Your task to perform on an android device: Search for Mexican restaurants on Maps Image 0: 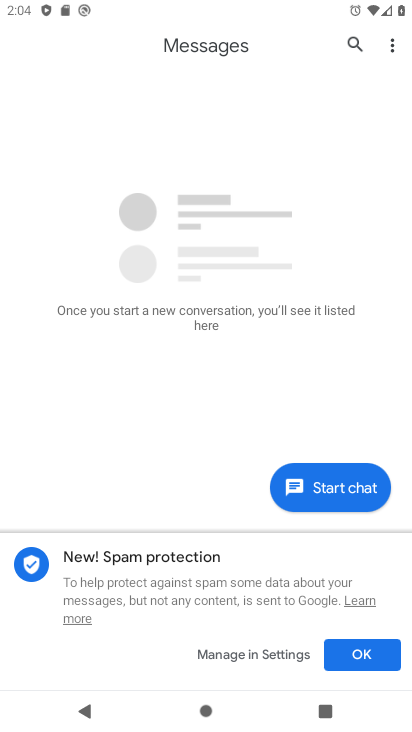
Step 0: press home button
Your task to perform on an android device: Search for Mexican restaurants on Maps Image 1: 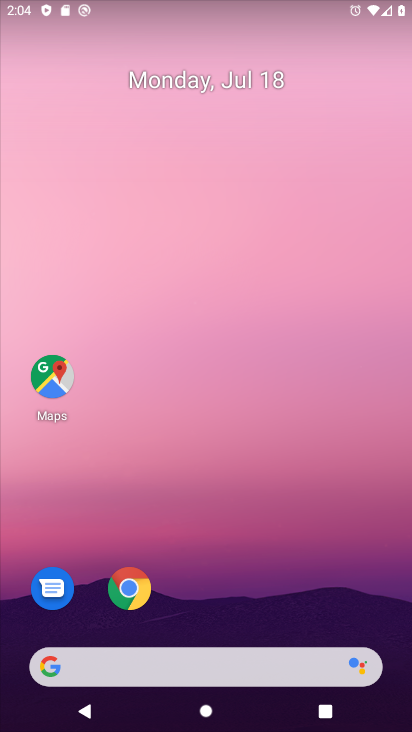
Step 1: drag from (363, 626) to (280, 194)
Your task to perform on an android device: Search for Mexican restaurants on Maps Image 2: 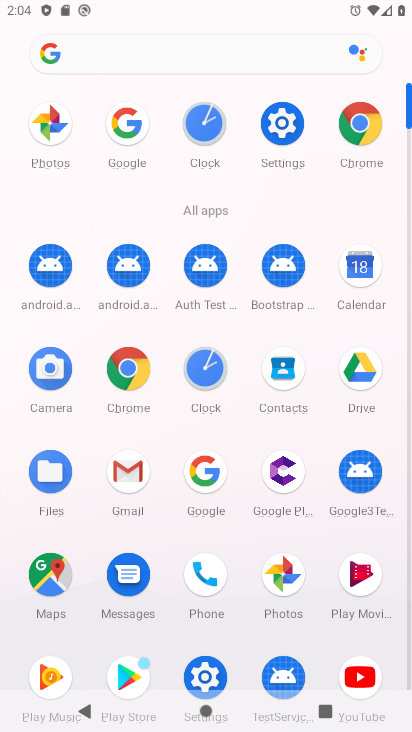
Step 2: click (51, 575)
Your task to perform on an android device: Search for Mexican restaurants on Maps Image 3: 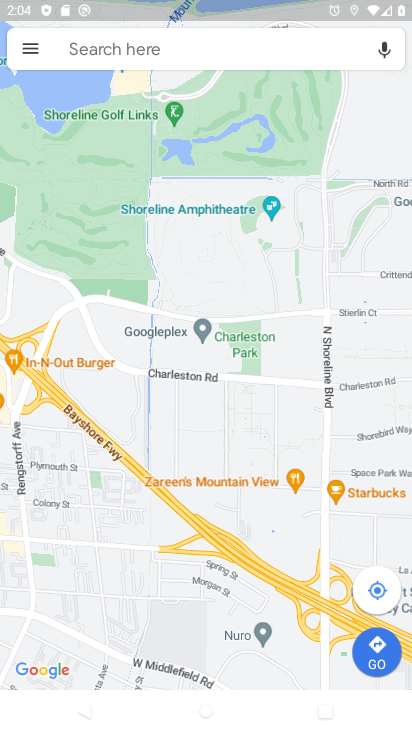
Step 3: click (156, 63)
Your task to perform on an android device: Search for Mexican restaurants on Maps Image 4: 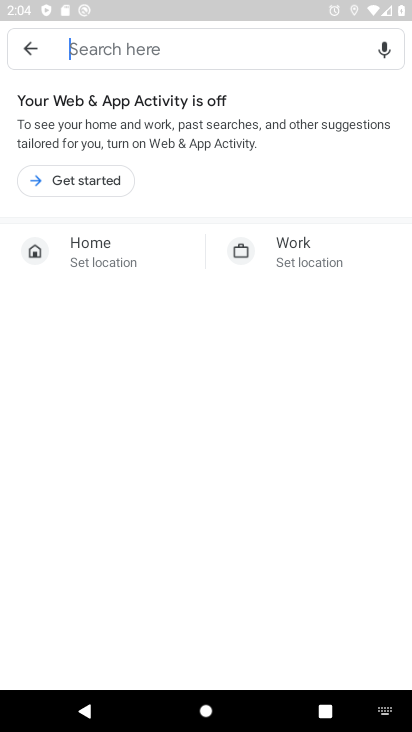
Step 4: type "Mexican restaurants"
Your task to perform on an android device: Search for Mexican restaurants on Maps Image 5: 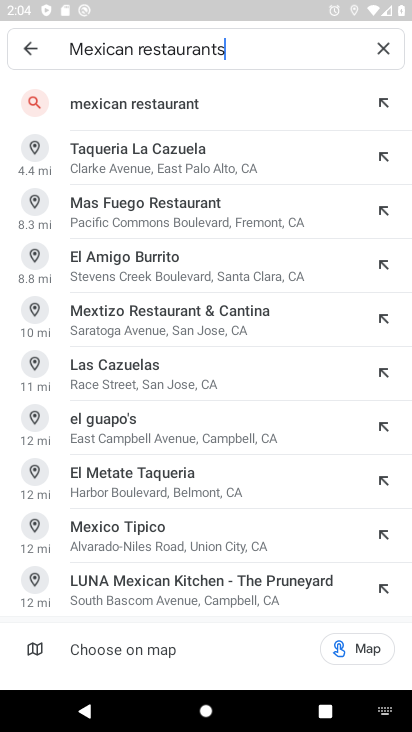
Step 5: click (271, 106)
Your task to perform on an android device: Search for Mexican restaurants on Maps Image 6: 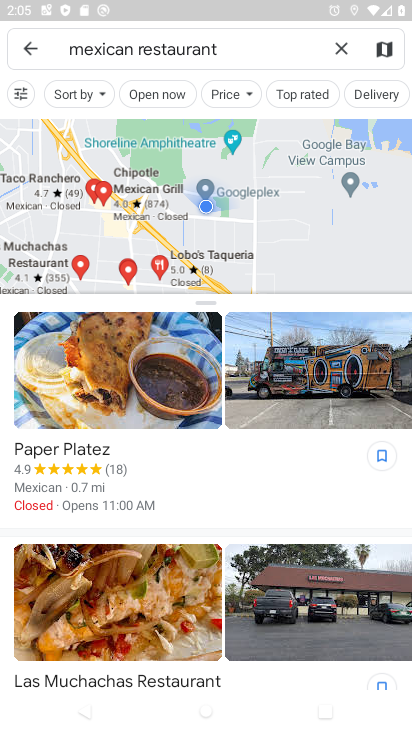
Step 6: task complete